Your task to perform on an android device: Search for razer blade on ebay, select the first entry, and add it to the cart. Image 0: 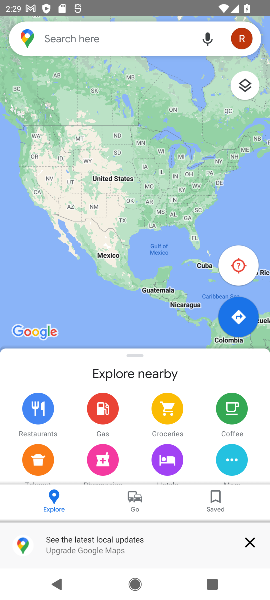
Step 0: press home button
Your task to perform on an android device: Search for razer blade on ebay, select the first entry, and add it to the cart. Image 1: 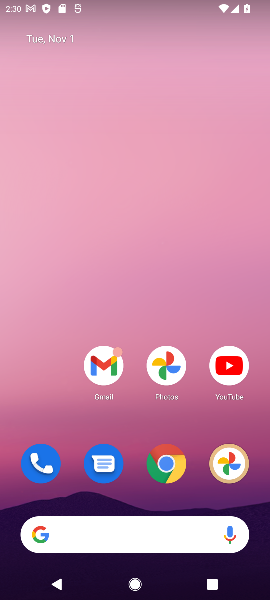
Step 1: drag from (135, 497) to (179, 167)
Your task to perform on an android device: Search for razer blade on ebay, select the first entry, and add it to the cart. Image 2: 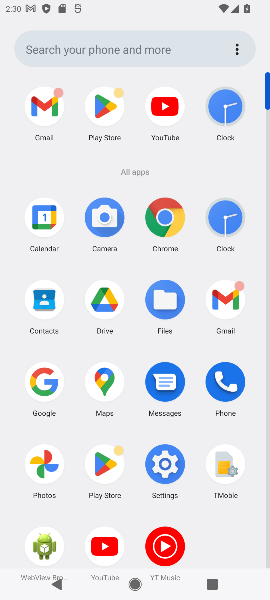
Step 2: click (164, 217)
Your task to perform on an android device: Search for razer blade on ebay, select the first entry, and add it to the cart. Image 3: 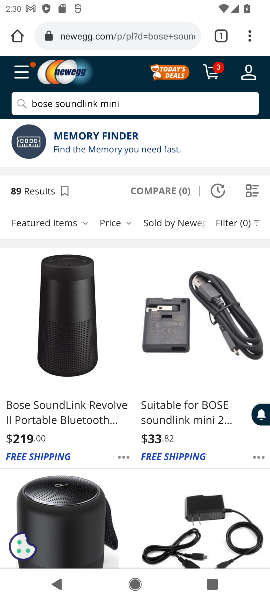
Step 3: click (181, 35)
Your task to perform on an android device: Search for razer blade on ebay, select the first entry, and add it to the cart. Image 4: 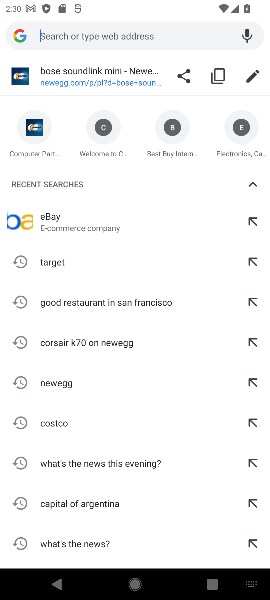
Step 4: type "ebay.com"
Your task to perform on an android device: Search for razer blade on ebay, select the first entry, and add it to the cart. Image 5: 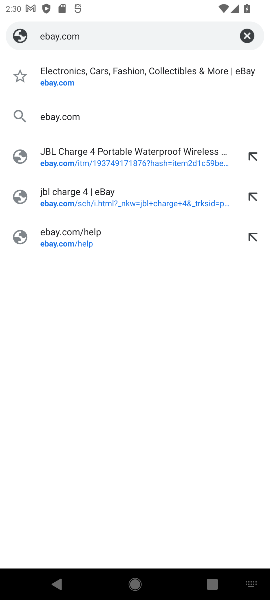
Step 5: press enter
Your task to perform on an android device: Search for razer blade on ebay, select the first entry, and add it to the cart. Image 6: 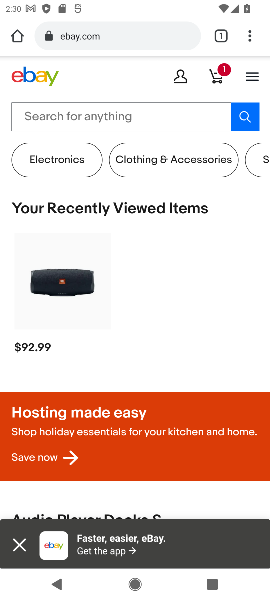
Step 6: click (127, 114)
Your task to perform on an android device: Search for razer blade on ebay, select the first entry, and add it to the cart. Image 7: 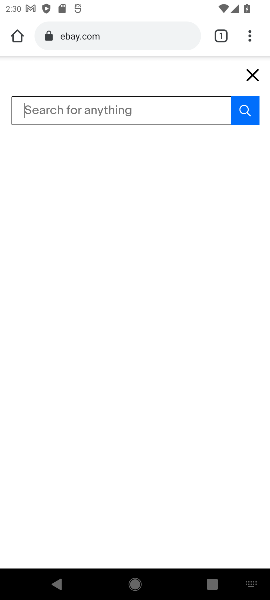
Step 7: type "razer blade"
Your task to perform on an android device: Search for razer blade on ebay, select the first entry, and add it to the cart. Image 8: 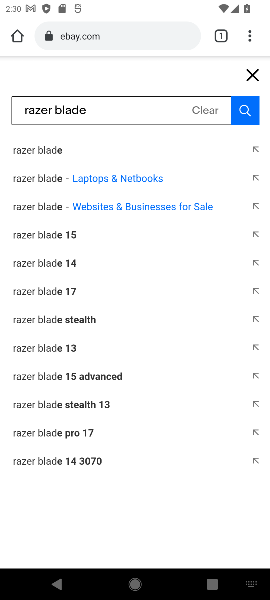
Step 8: press enter
Your task to perform on an android device: Search for razer blade on ebay, select the first entry, and add it to the cart. Image 9: 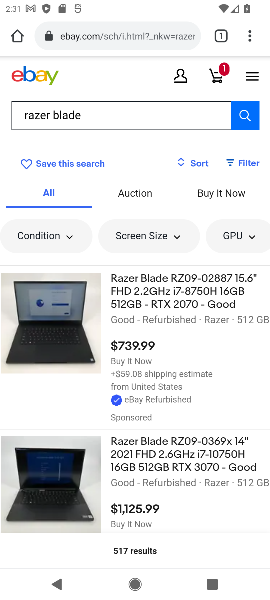
Step 9: click (59, 341)
Your task to perform on an android device: Search for razer blade on ebay, select the first entry, and add it to the cart. Image 10: 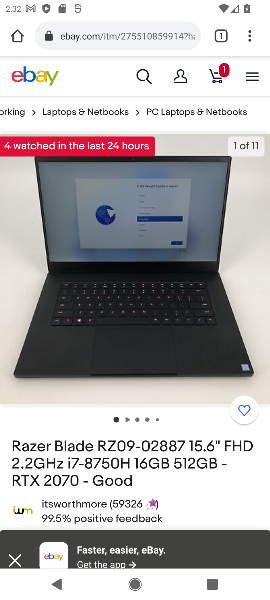
Step 10: drag from (124, 513) to (80, 287)
Your task to perform on an android device: Search for razer blade on ebay, select the first entry, and add it to the cart. Image 11: 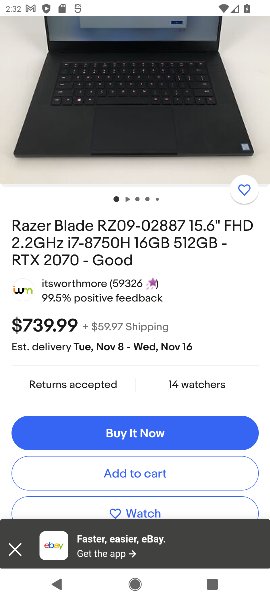
Step 11: click (108, 477)
Your task to perform on an android device: Search for razer blade on ebay, select the first entry, and add it to the cart. Image 12: 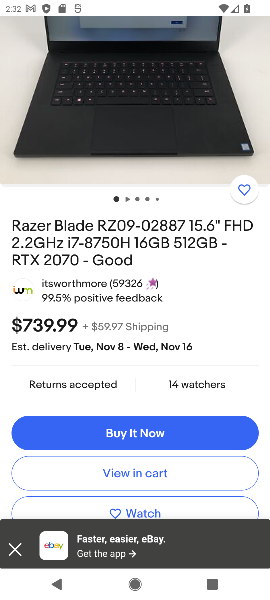
Step 12: task complete